Your task to perform on an android device: Clear all items from cart on walmart.com. Search for "asus zenbook" on walmart.com, select the first entry, and add it to the cart. Image 0: 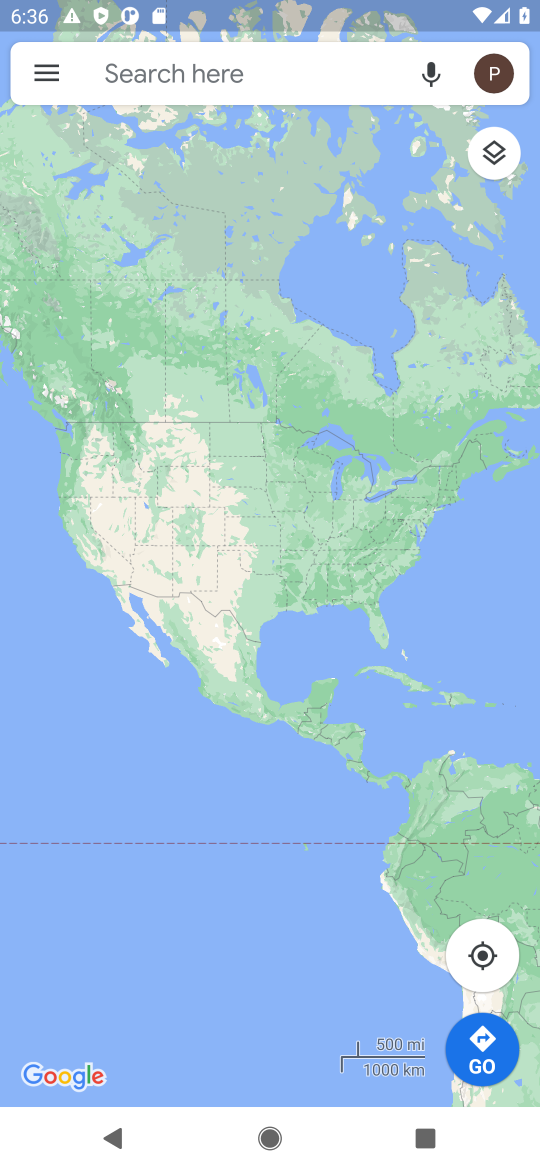
Step 0: press home button
Your task to perform on an android device: Clear all items from cart on walmart.com. Search for "asus zenbook" on walmart.com, select the first entry, and add it to the cart. Image 1: 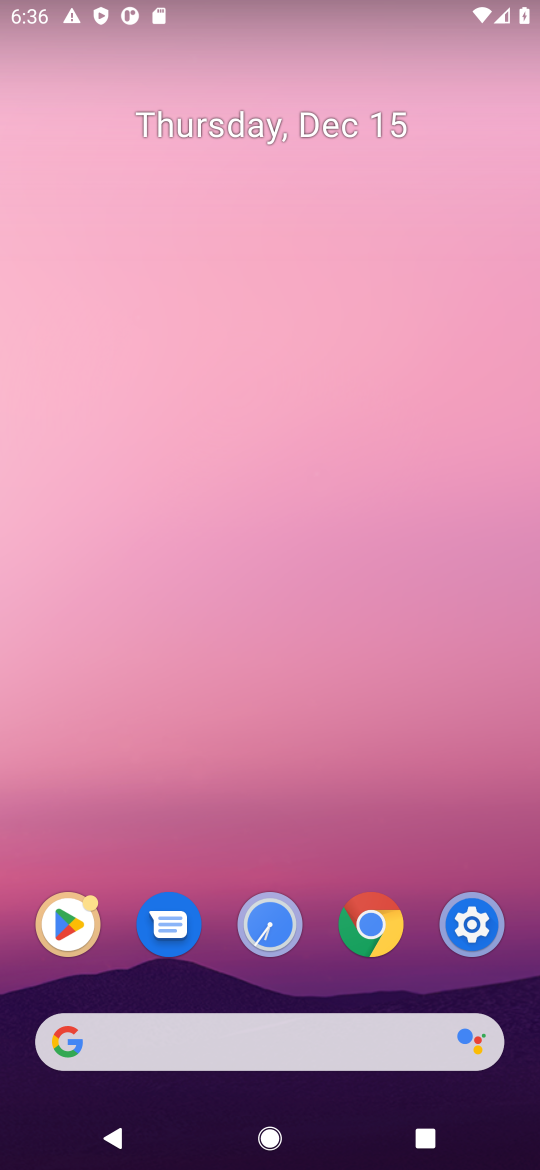
Step 1: click (360, 919)
Your task to perform on an android device: Clear all items from cart on walmart.com. Search for "asus zenbook" on walmart.com, select the first entry, and add it to the cart. Image 2: 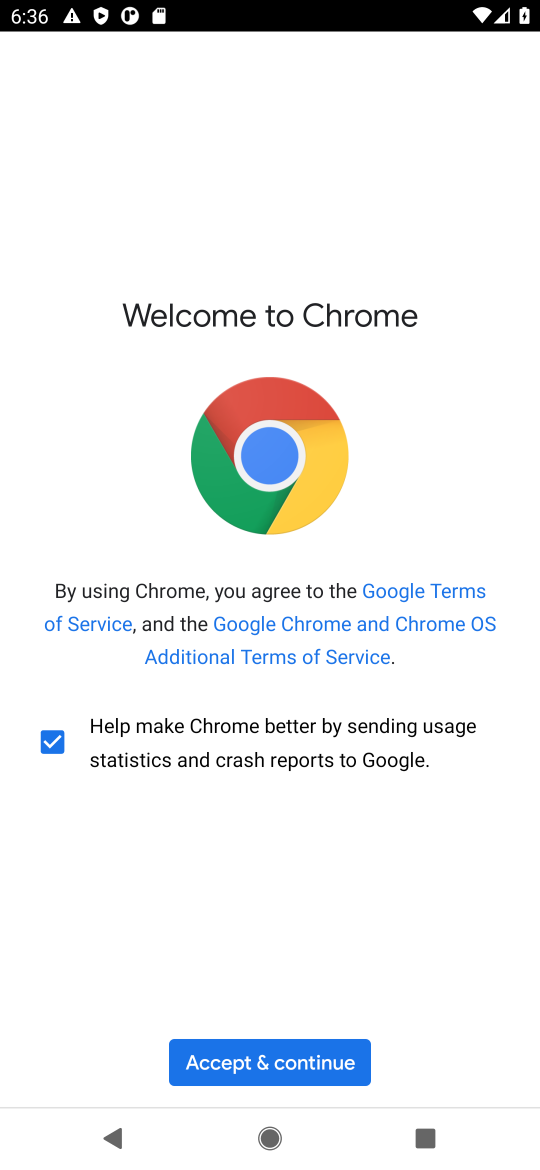
Step 2: click (256, 1062)
Your task to perform on an android device: Clear all items from cart on walmart.com. Search for "asus zenbook" on walmart.com, select the first entry, and add it to the cart. Image 3: 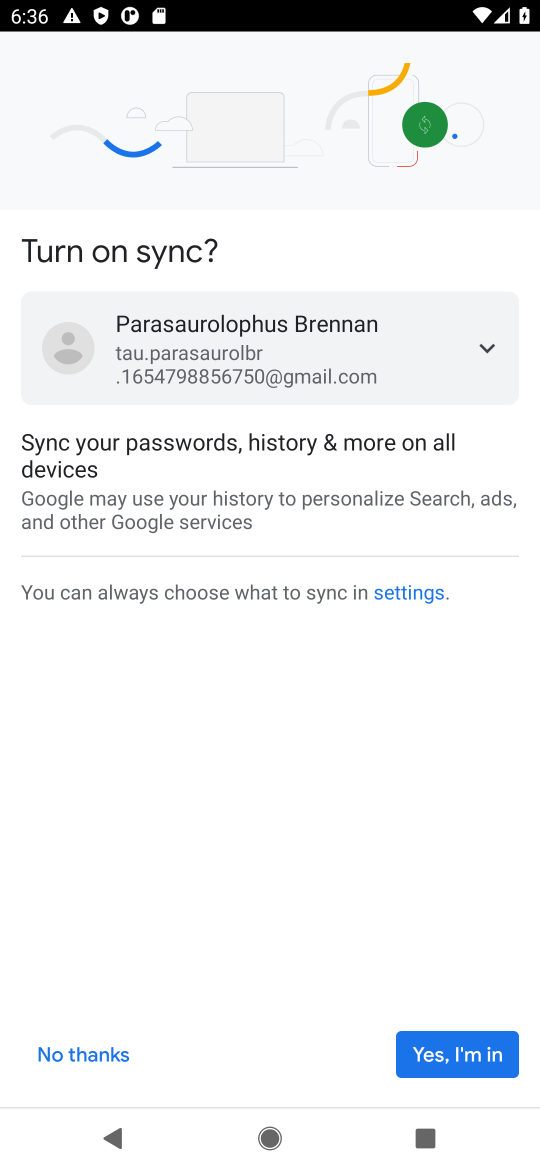
Step 3: click (435, 1069)
Your task to perform on an android device: Clear all items from cart on walmart.com. Search for "asus zenbook" on walmart.com, select the first entry, and add it to the cart. Image 4: 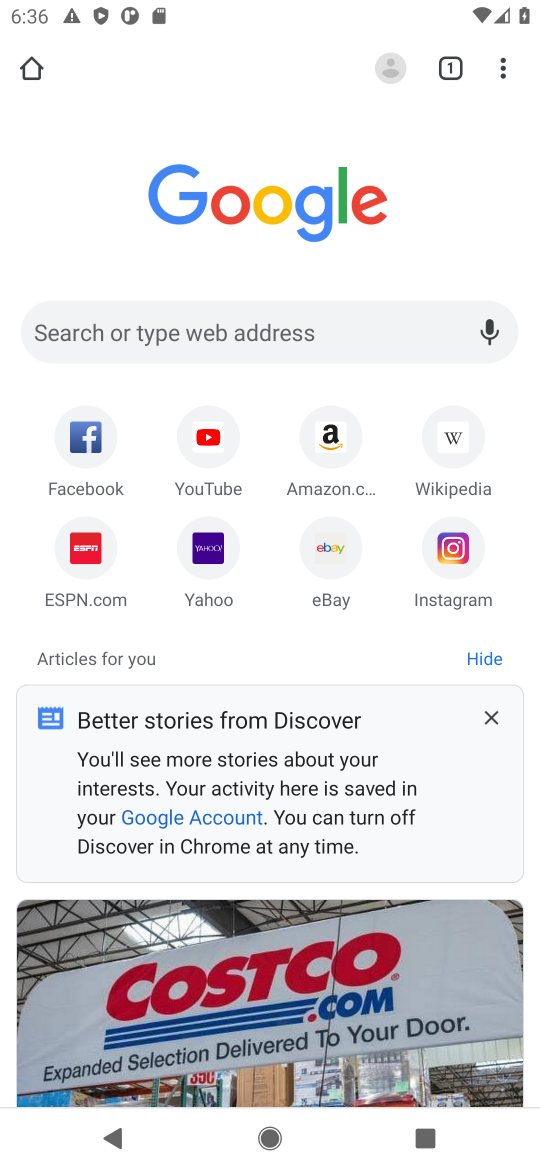
Step 4: click (120, 326)
Your task to perform on an android device: Clear all items from cart on walmart.com. Search for "asus zenbook" on walmart.com, select the first entry, and add it to the cart. Image 5: 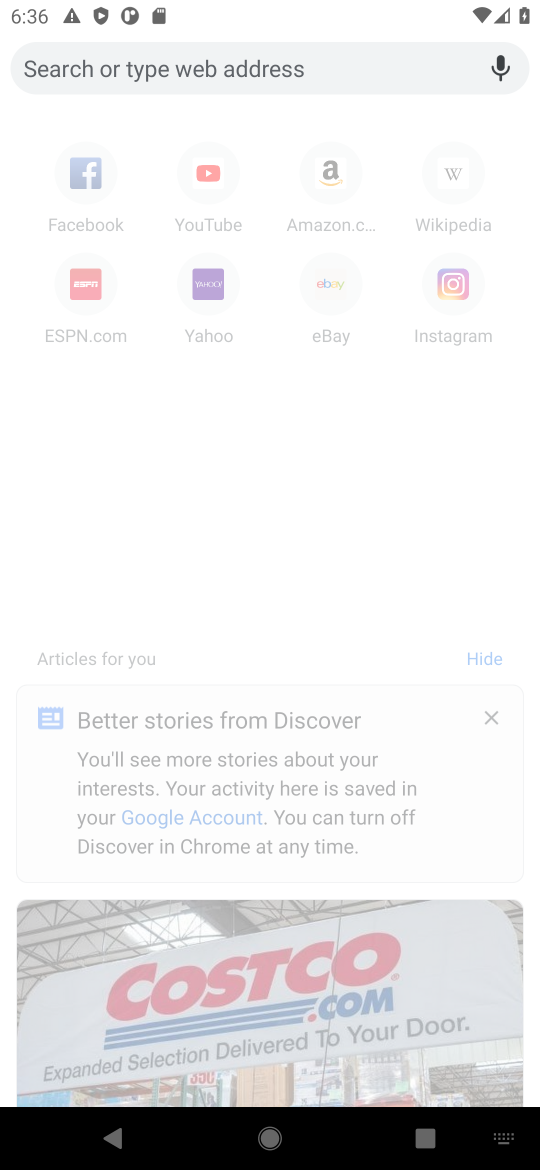
Step 5: type "walmart"
Your task to perform on an android device: Clear all items from cart on walmart.com. Search for "asus zenbook" on walmart.com, select the first entry, and add it to the cart. Image 6: 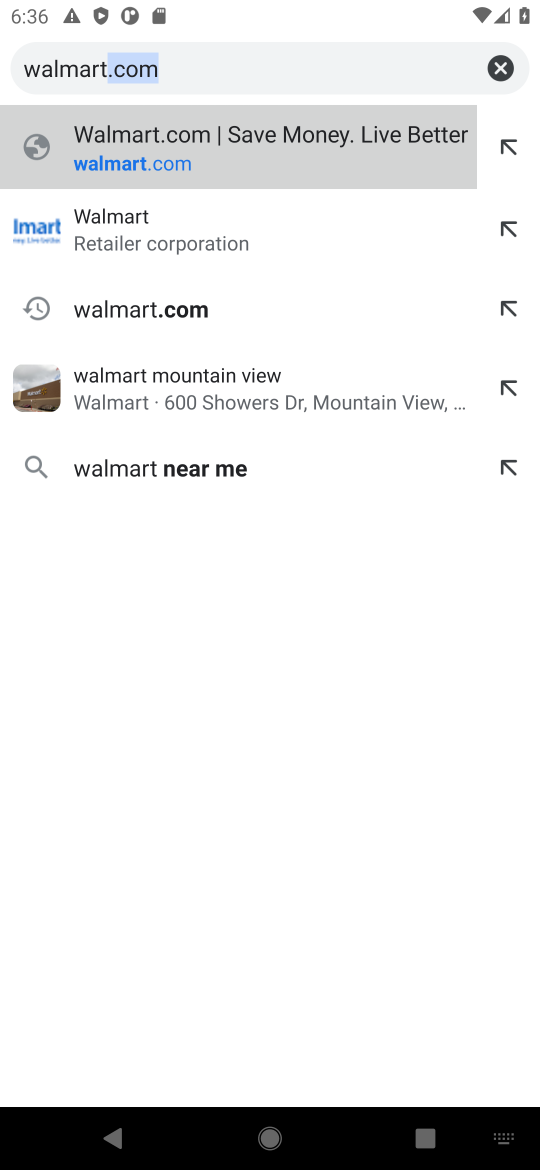
Step 6: click (157, 139)
Your task to perform on an android device: Clear all items from cart on walmart.com. Search for "asus zenbook" on walmart.com, select the first entry, and add it to the cart. Image 7: 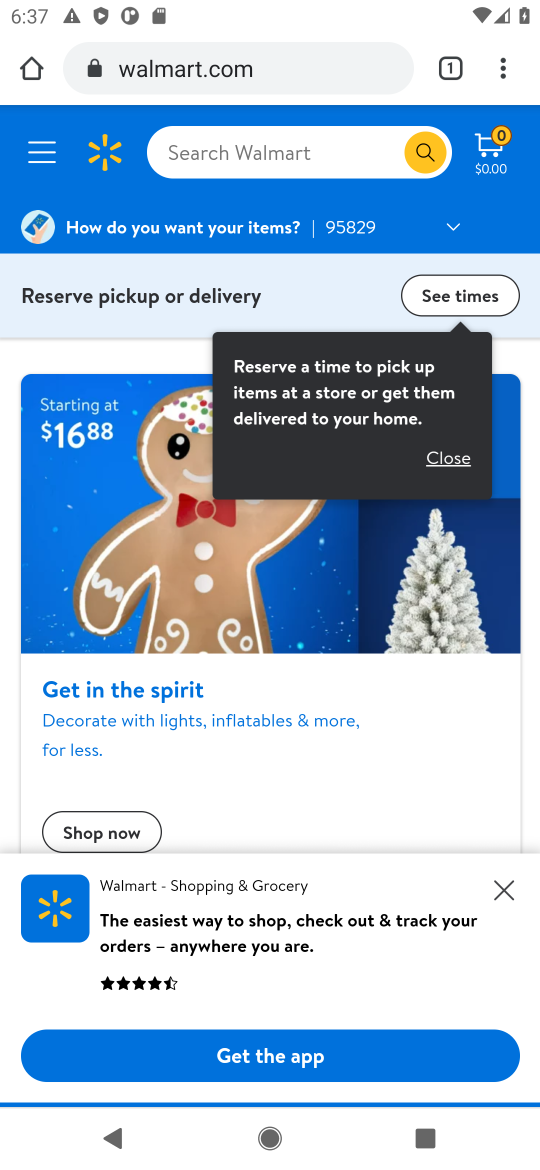
Step 7: click (502, 164)
Your task to perform on an android device: Clear all items from cart on walmart.com. Search for "asus zenbook" on walmart.com, select the first entry, and add it to the cart. Image 8: 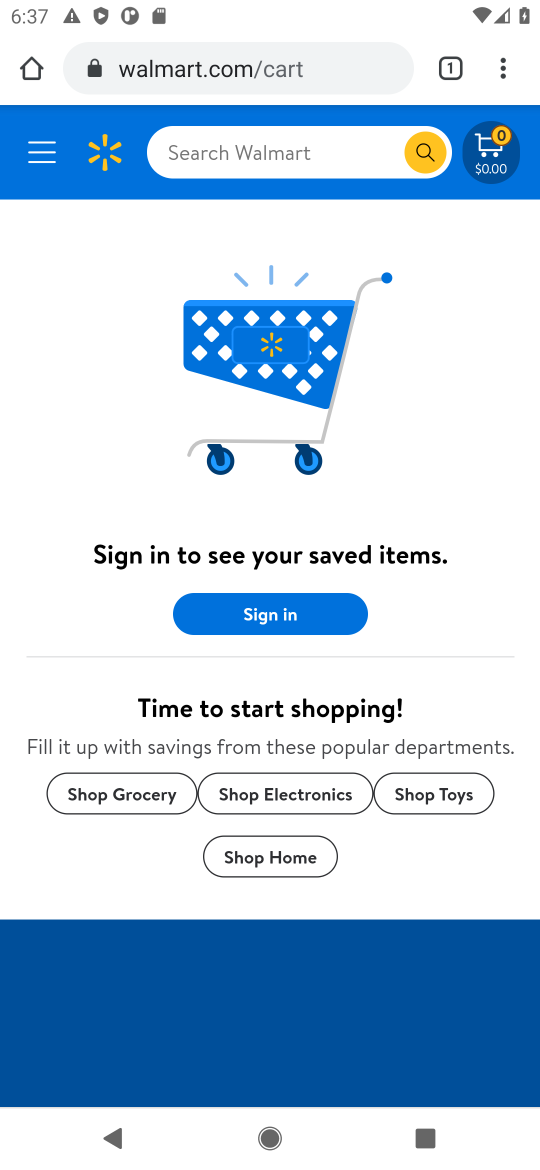
Step 8: click (356, 141)
Your task to perform on an android device: Clear all items from cart on walmart.com. Search for "asus zenbook" on walmart.com, select the first entry, and add it to the cart. Image 9: 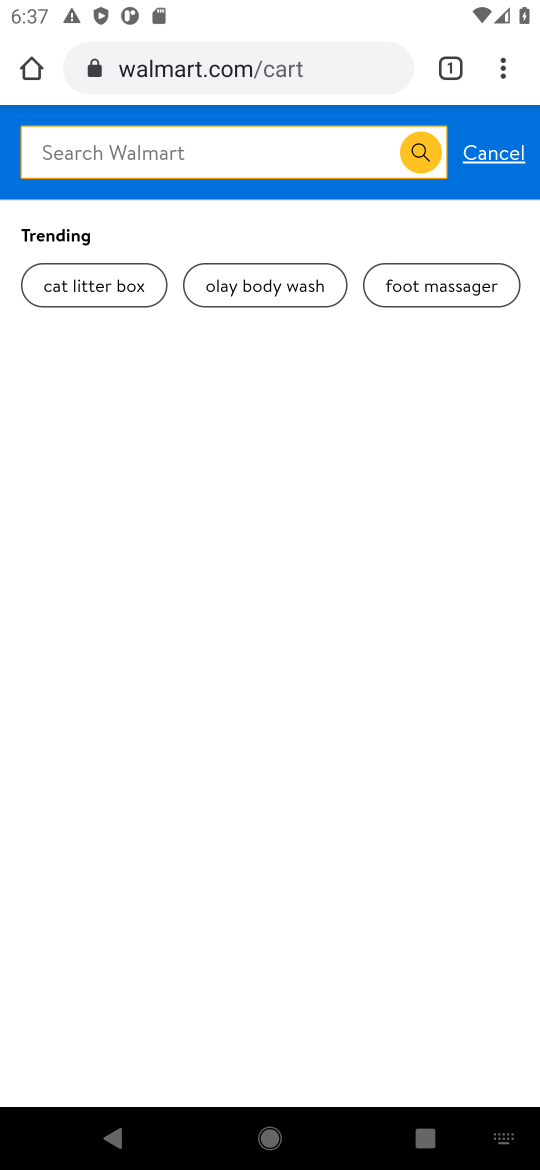
Step 9: type "asus zenbook"
Your task to perform on an android device: Clear all items from cart on walmart.com. Search for "asus zenbook" on walmart.com, select the first entry, and add it to the cart. Image 10: 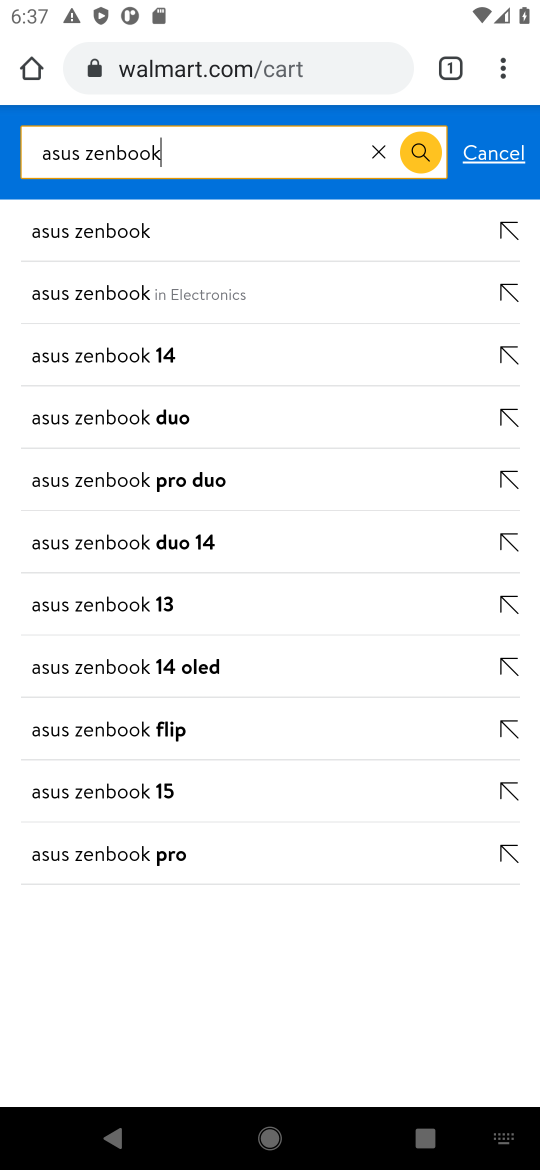
Step 10: click (93, 222)
Your task to perform on an android device: Clear all items from cart on walmart.com. Search for "asus zenbook" on walmart.com, select the first entry, and add it to the cart. Image 11: 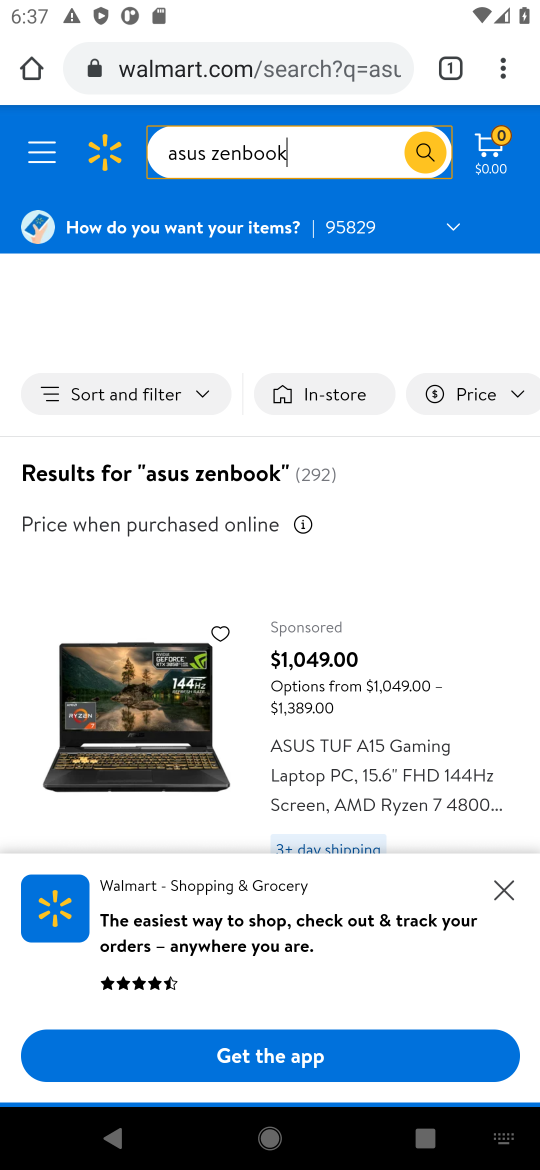
Step 11: click (508, 893)
Your task to perform on an android device: Clear all items from cart on walmart.com. Search for "asus zenbook" on walmart.com, select the first entry, and add it to the cart. Image 12: 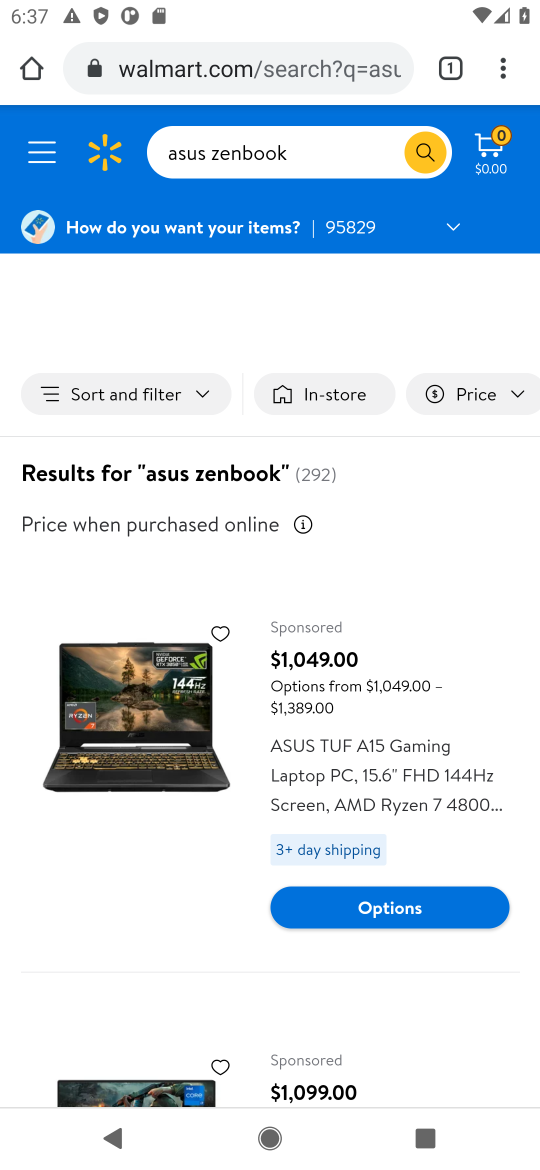
Step 12: click (450, 903)
Your task to perform on an android device: Clear all items from cart on walmart.com. Search for "asus zenbook" on walmart.com, select the first entry, and add it to the cart. Image 13: 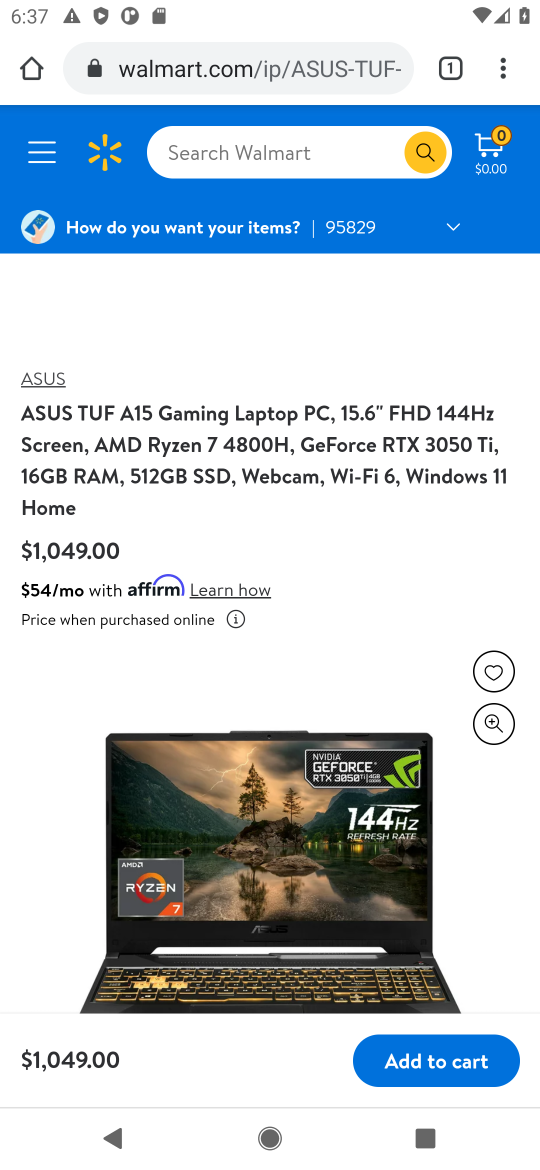
Step 13: click (463, 1050)
Your task to perform on an android device: Clear all items from cart on walmart.com. Search for "asus zenbook" on walmart.com, select the first entry, and add it to the cart. Image 14: 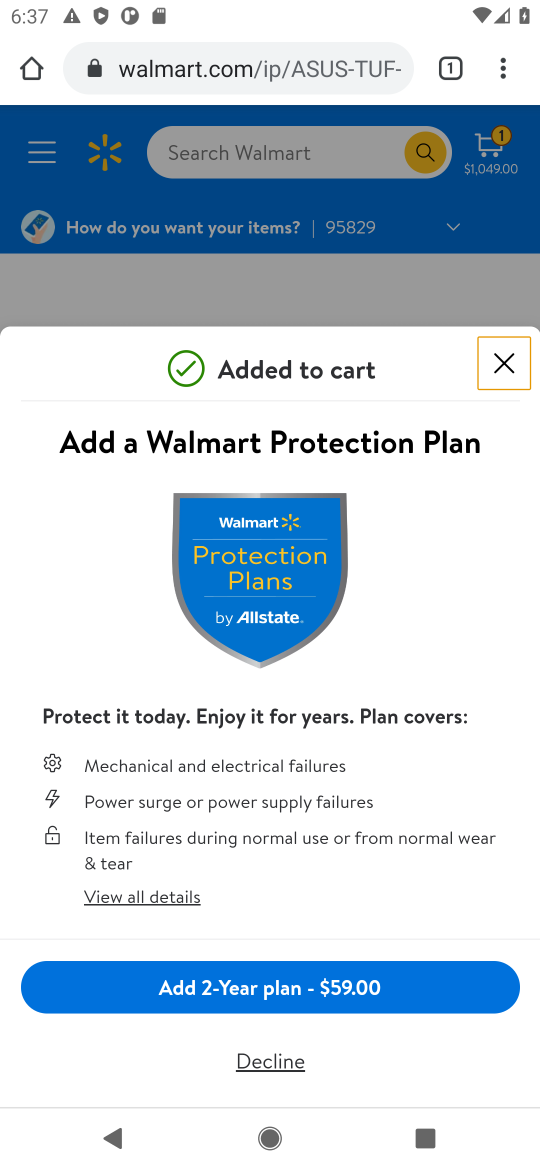
Step 14: click (486, 371)
Your task to perform on an android device: Clear all items from cart on walmart.com. Search for "asus zenbook" on walmart.com, select the first entry, and add it to the cart. Image 15: 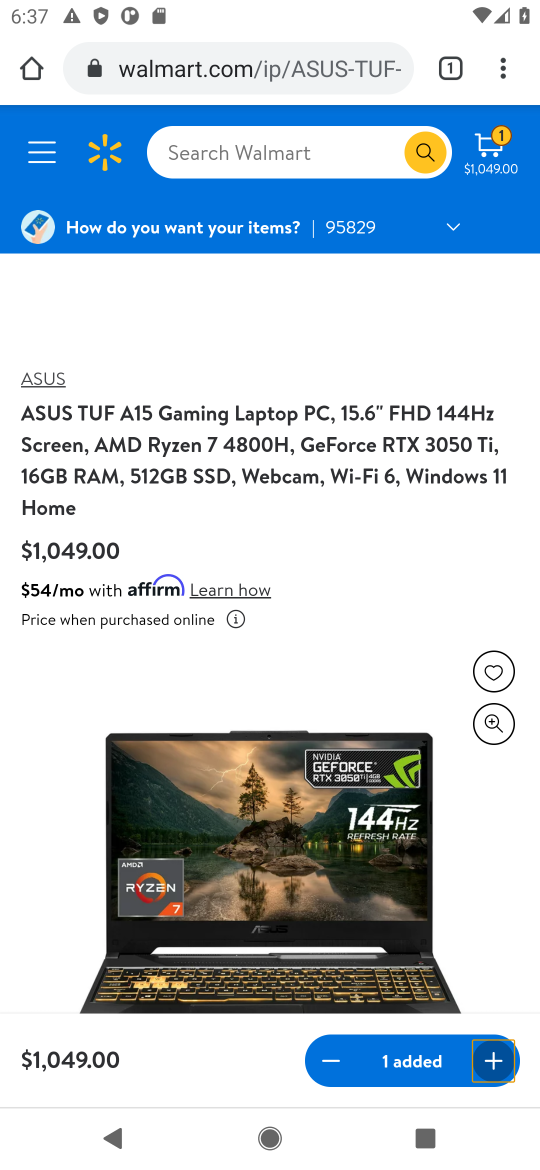
Step 15: task complete